Your task to perform on an android device: turn off wifi Image 0: 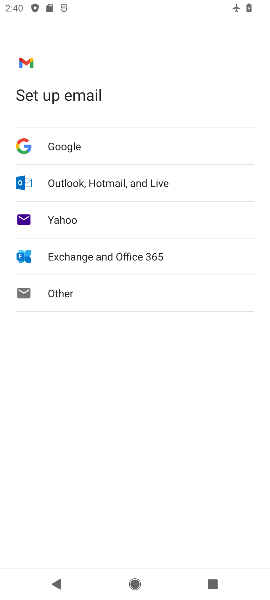
Step 0: press home button
Your task to perform on an android device: turn off wifi Image 1: 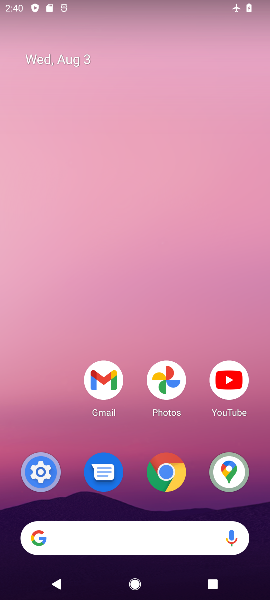
Step 1: task complete